Your task to perform on an android device: Go to network settings Image 0: 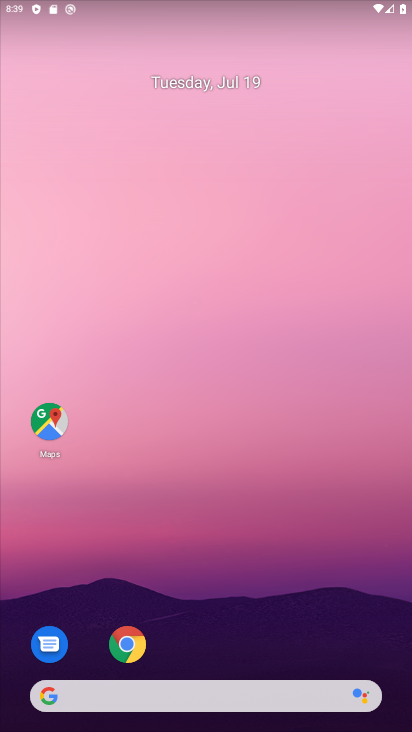
Step 0: drag from (300, 317) to (214, 172)
Your task to perform on an android device: Go to network settings Image 1: 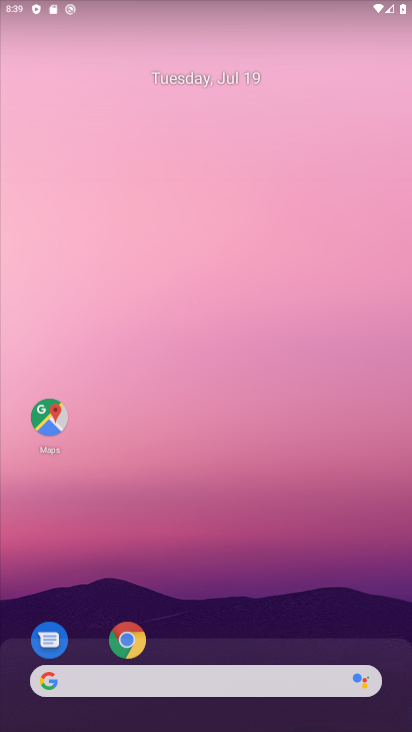
Step 1: drag from (220, 434) to (194, 29)
Your task to perform on an android device: Go to network settings Image 2: 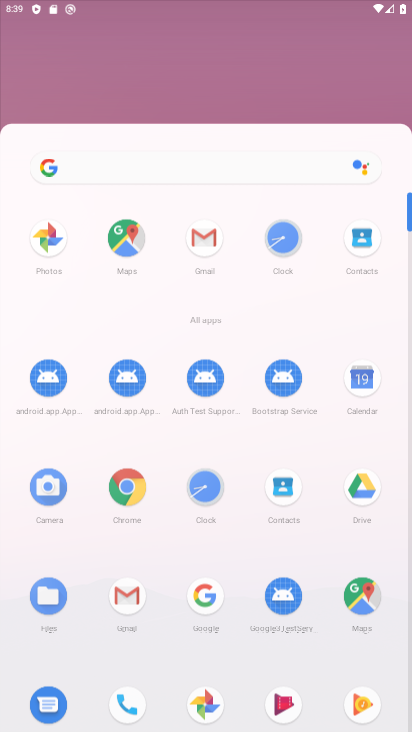
Step 2: drag from (209, 362) to (159, 13)
Your task to perform on an android device: Go to network settings Image 3: 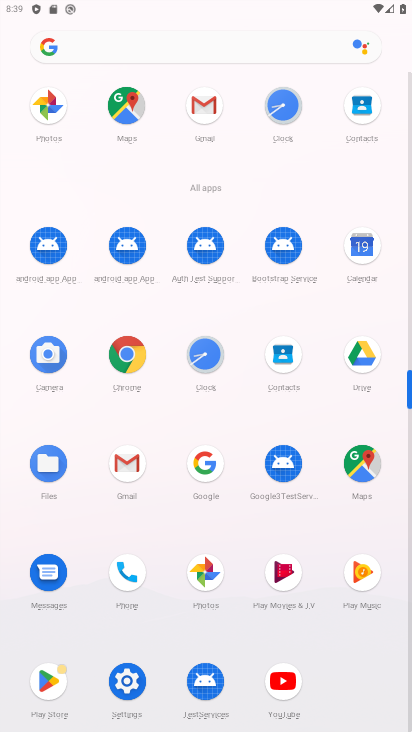
Step 3: click (122, 688)
Your task to perform on an android device: Go to network settings Image 4: 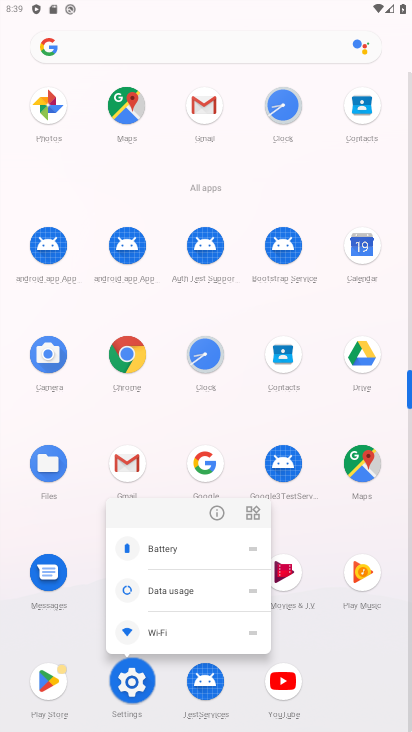
Step 4: click (125, 693)
Your task to perform on an android device: Go to network settings Image 5: 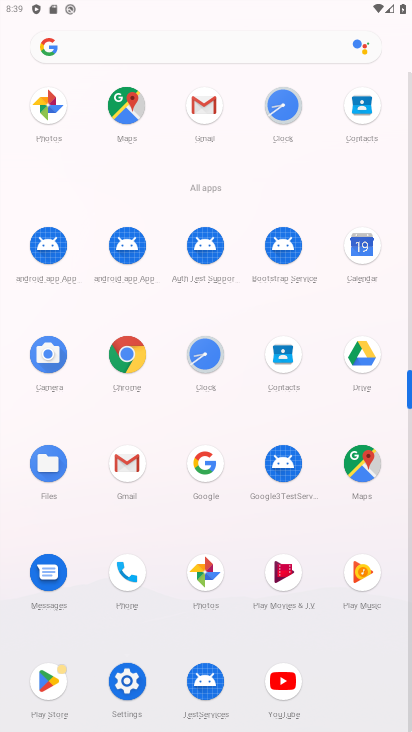
Step 5: click (126, 694)
Your task to perform on an android device: Go to network settings Image 6: 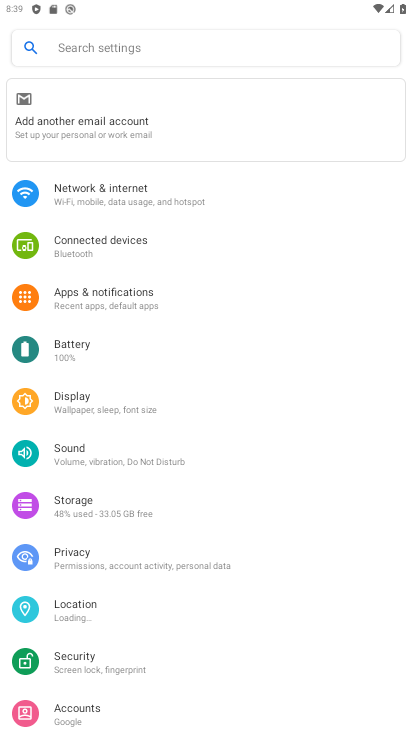
Step 6: click (130, 193)
Your task to perform on an android device: Go to network settings Image 7: 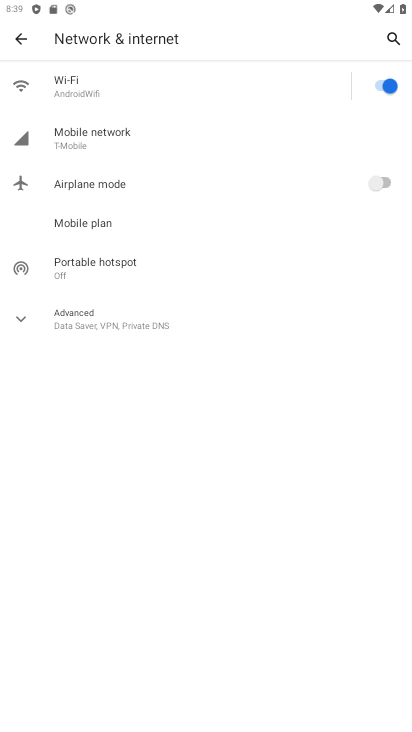
Step 7: task complete